Your task to perform on an android device: What is the news today? Image 0: 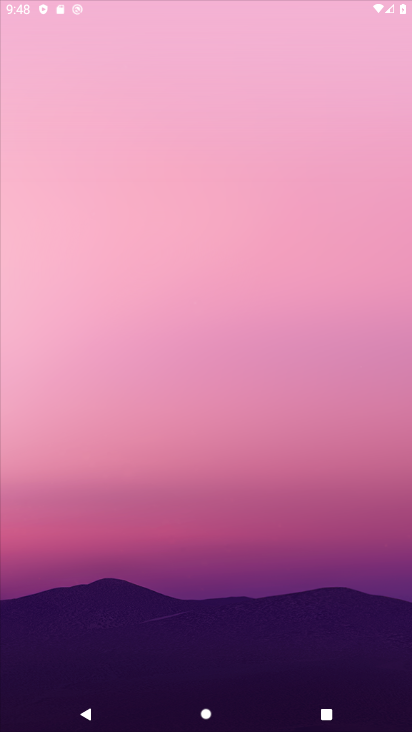
Step 0: press home button
Your task to perform on an android device: What is the news today? Image 1: 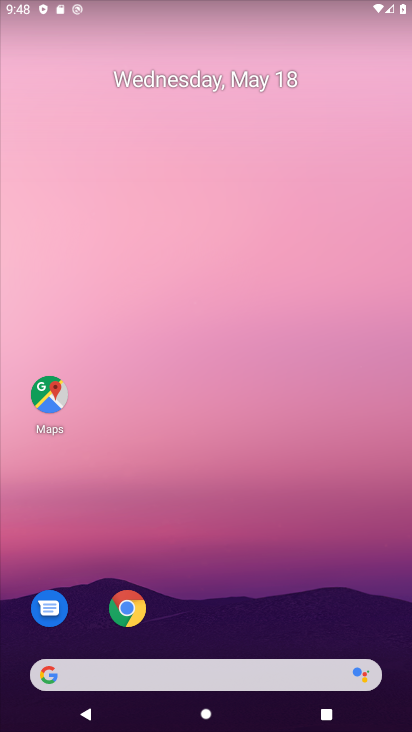
Step 1: click (231, 673)
Your task to perform on an android device: What is the news today? Image 2: 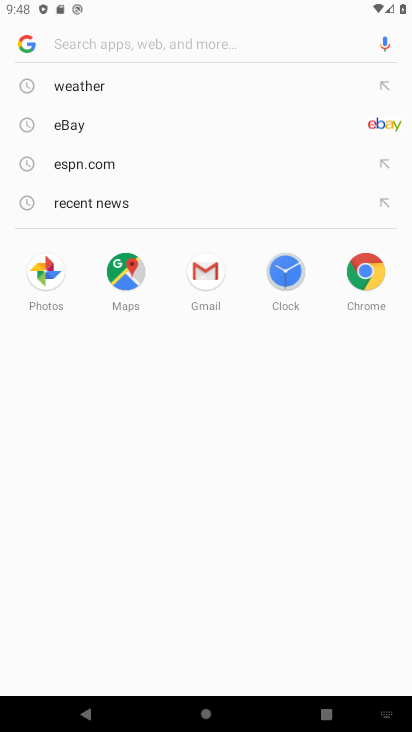
Step 2: type "news today"
Your task to perform on an android device: What is the news today? Image 3: 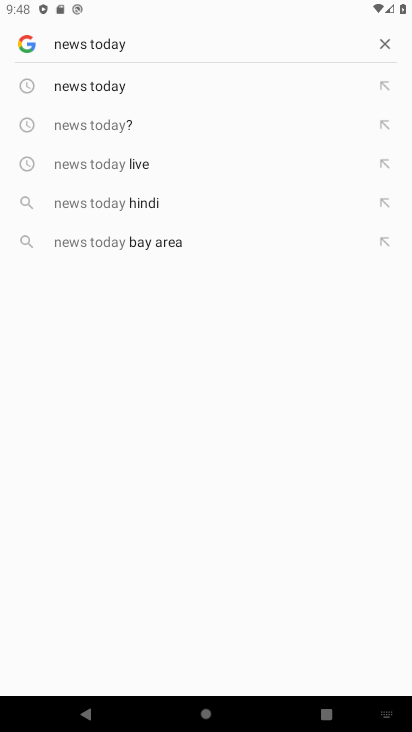
Step 3: click (125, 94)
Your task to perform on an android device: What is the news today? Image 4: 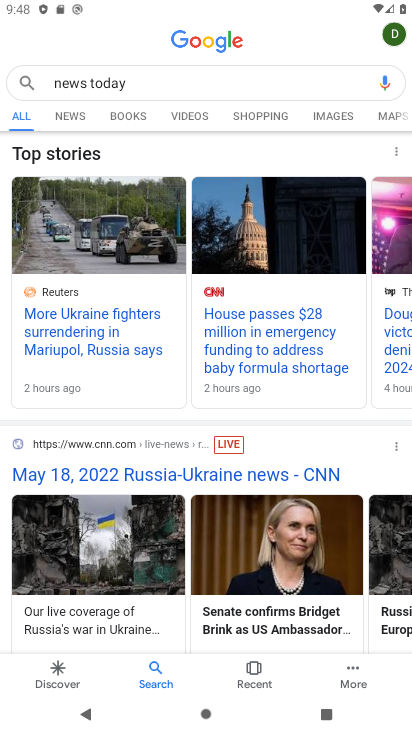
Step 4: task complete